Your task to perform on an android device: Show me the alarms in the clock app Image 0: 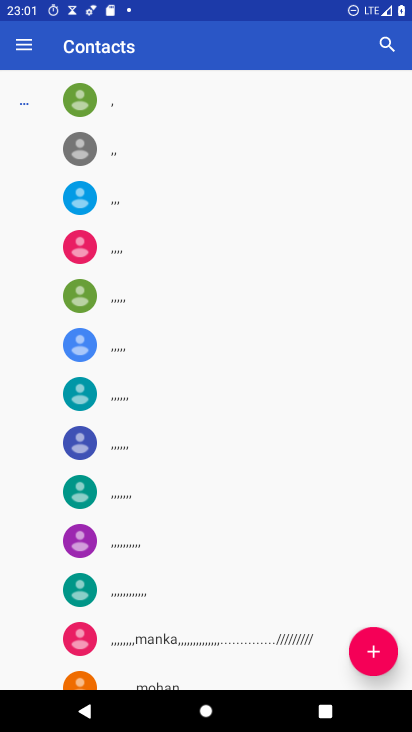
Step 0: press back button
Your task to perform on an android device: Show me the alarms in the clock app Image 1: 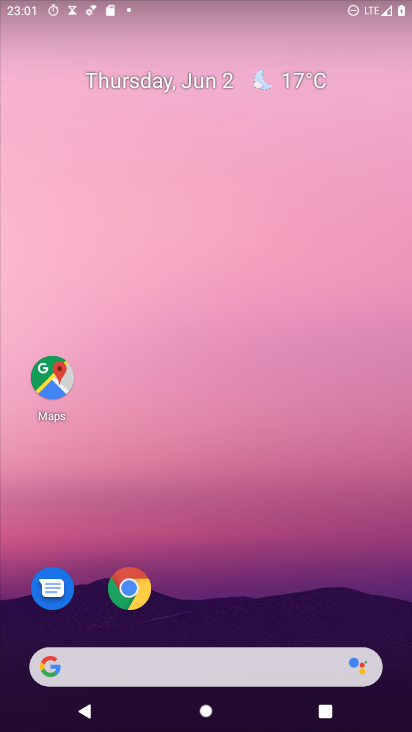
Step 1: drag from (237, 578) to (250, 79)
Your task to perform on an android device: Show me the alarms in the clock app Image 2: 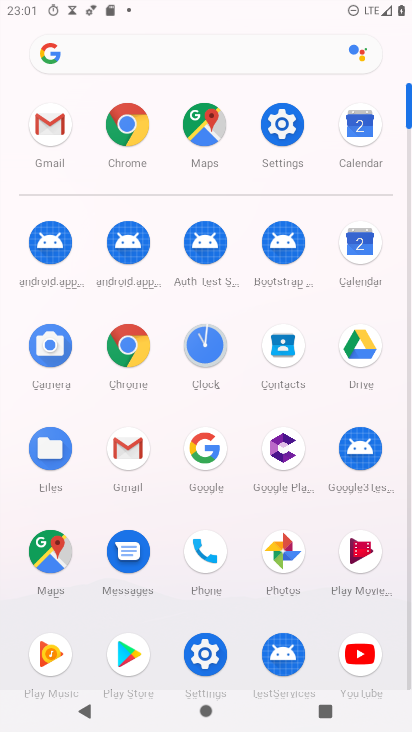
Step 2: click (209, 341)
Your task to perform on an android device: Show me the alarms in the clock app Image 3: 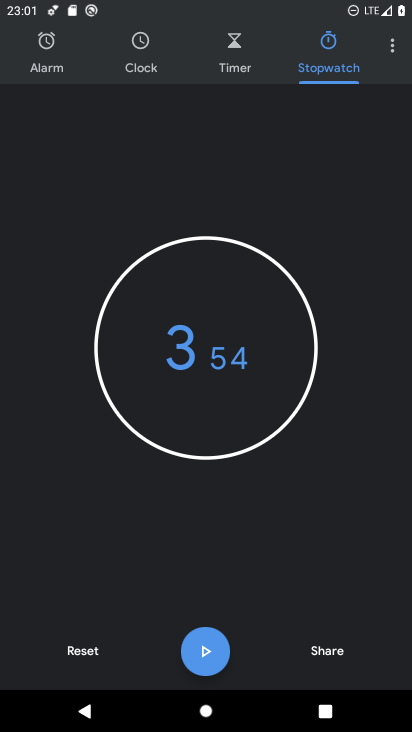
Step 3: click (61, 48)
Your task to perform on an android device: Show me the alarms in the clock app Image 4: 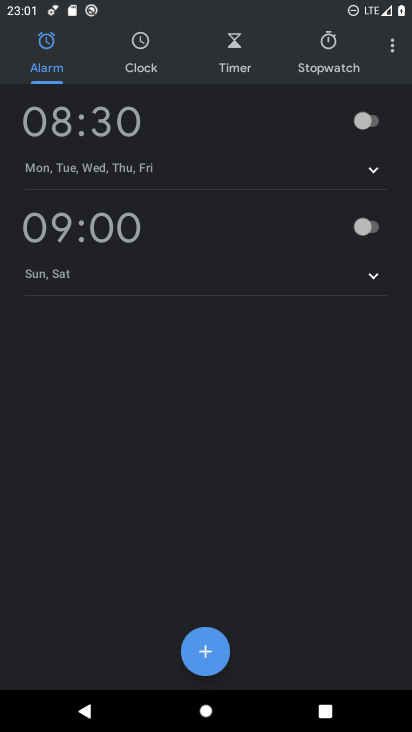
Step 4: task complete